Your task to perform on an android device: Show the shopping cart on bestbuy. Add "alienware aurora" to the cart on bestbuy Image 0: 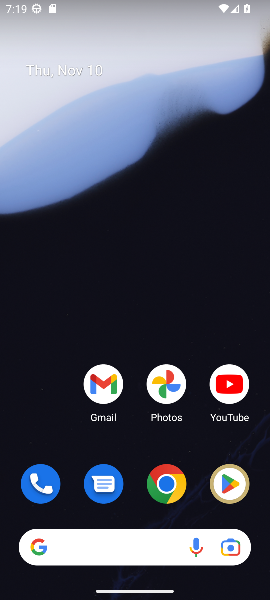
Step 0: click (170, 491)
Your task to perform on an android device: Show the shopping cart on bestbuy. Add "alienware aurora" to the cart on bestbuy Image 1: 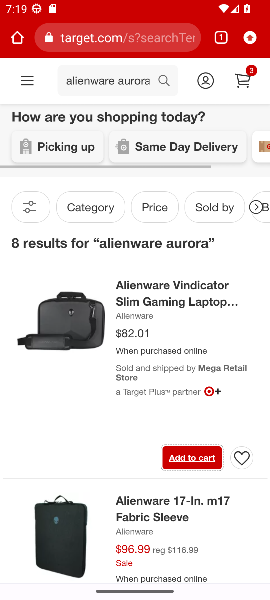
Step 1: click (139, 41)
Your task to perform on an android device: Show the shopping cart on bestbuy. Add "alienware aurora" to the cart on bestbuy Image 2: 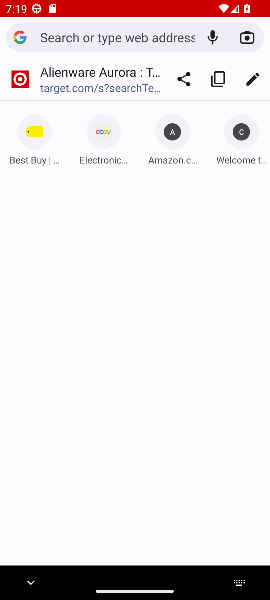
Step 2: click (23, 154)
Your task to perform on an android device: Show the shopping cart on bestbuy. Add "alienware aurora" to the cart on bestbuy Image 3: 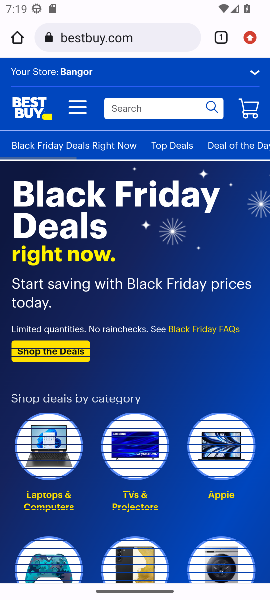
Step 3: click (246, 110)
Your task to perform on an android device: Show the shopping cart on bestbuy. Add "alienware aurora" to the cart on bestbuy Image 4: 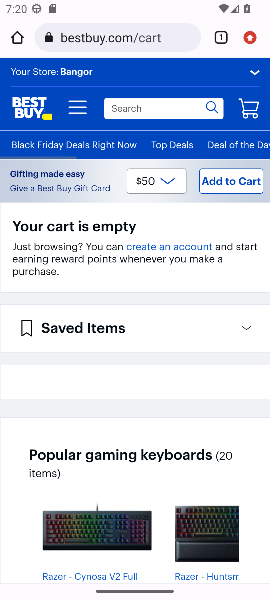
Step 4: click (156, 111)
Your task to perform on an android device: Show the shopping cart on bestbuy. Add "alienware aurora" to the cart on bestbuy Image 5: 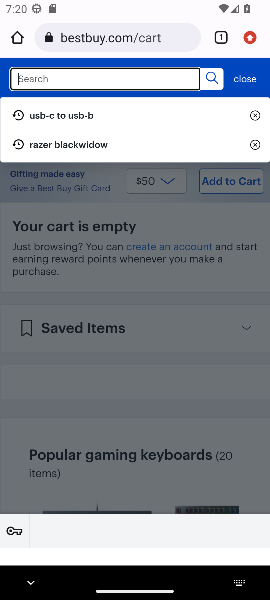
Step 5: type "alienware aurora"
Your task to perform on an android device: Show the shopping cart on bestbuy. Add "alienware aurora" to the cart on bestbuy Image 6: 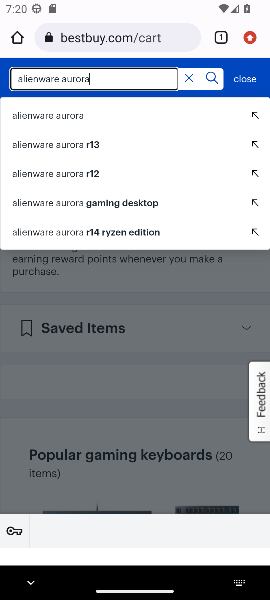
Step 6: click (75, 120)
Your task to perform on an android device: Show the shopping cart on bestbuy. Add "alienware aurora" to the cart on bestbuy Image 7: 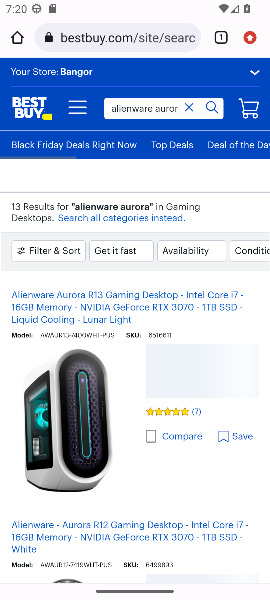
Step 7: drag from (70, 431) to (71, 341)
Your task to perform on an android device: Show the shopping cart on bestbuy. Add "alienware aurora" to the cart on bestbuy Image 8: 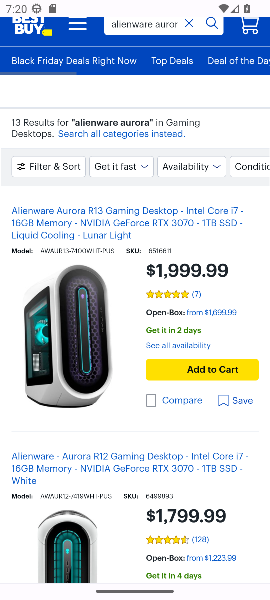
Step 8: click (206, 366)
Your task to perform on an android device: Show the shopping cart on bestbuy. Add "alienware aurora" to the cart on bestbuy Image 9: 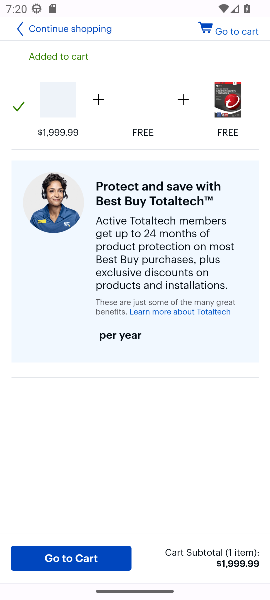
Step 9: task complete